Your task to perform on an android device: Show me popular videos on Youtube Image 0: 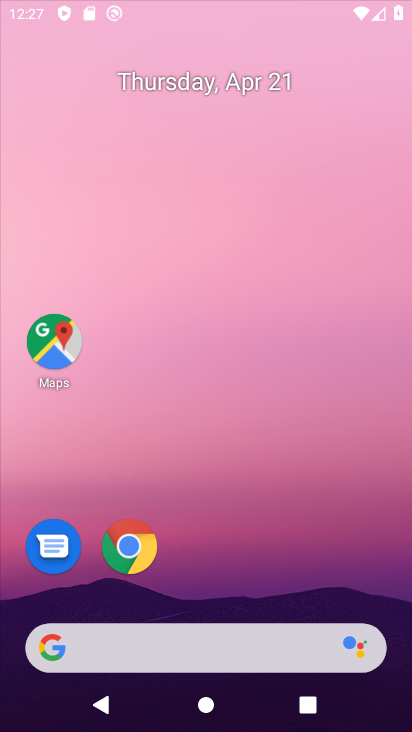
Step 0: drag from (286, 338) to (334, 3)
Your task to perform on an android device: Show me popular videos on Youtube Image 1: 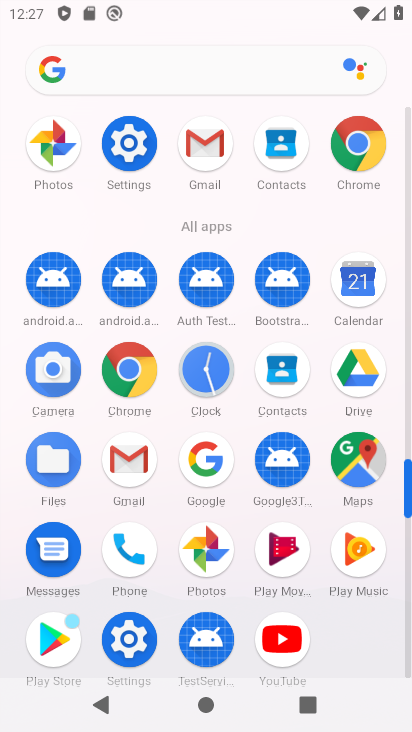
Step 1: click (283, 648)
Your task to perform on an android device: Show me popular videos on Youtube Image 2: 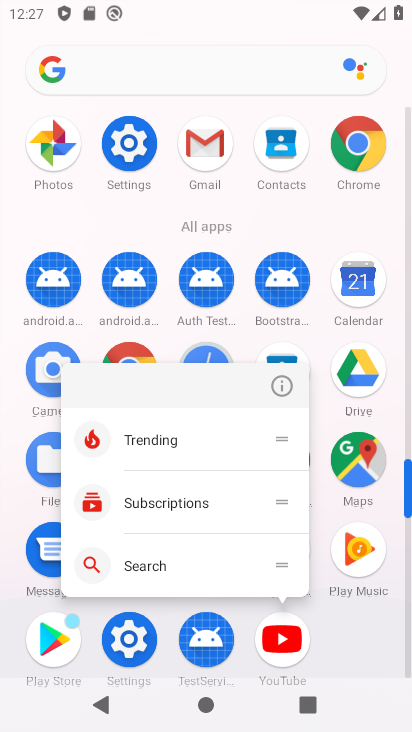
Step 2: click (284, 641)
Your task to perform on an android device: Show me popular videos on Youtube Image 3: 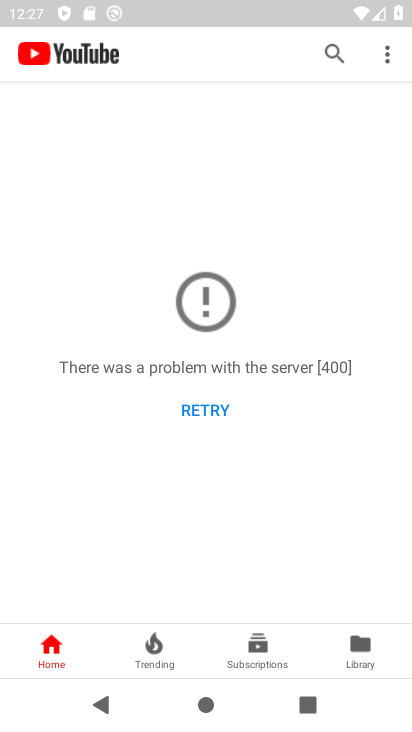
Step 3: click (168, 659)
Your task to perform on an android device: Show me popular videos on Youtube Image 4: 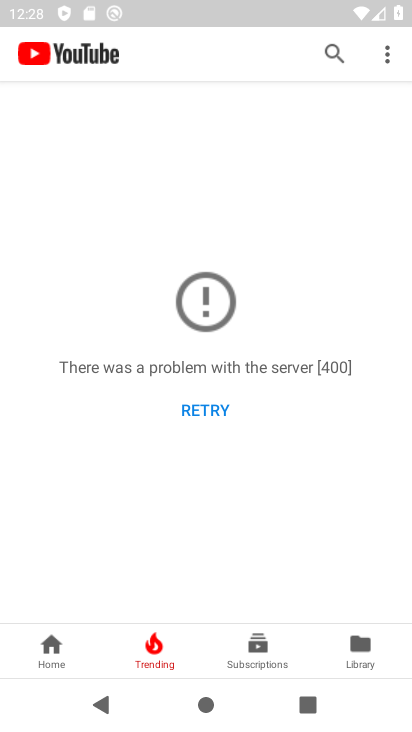
Step 4: task complete